Your task to perform on an android device: turn off location Image 0: 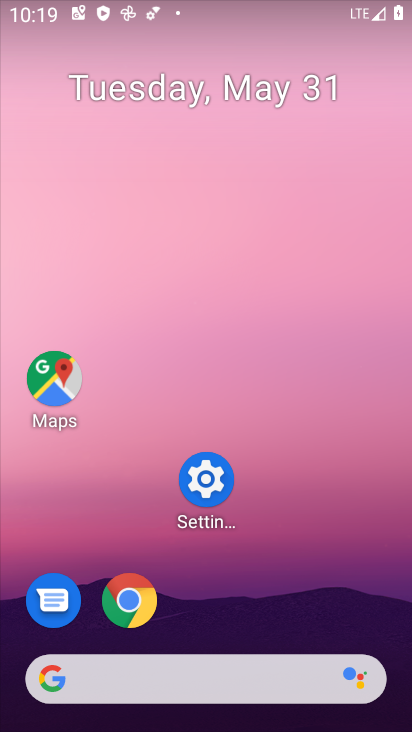
Step 0: press home button
Your task to perform on an android device: turn off location Image 1: 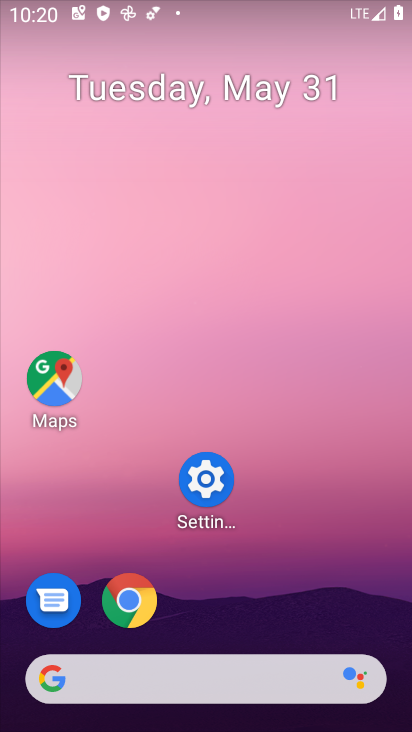
Step 1: drag from (329, 699) to (302, 94)
Your task to perform on an android device: turn off location Image 2: 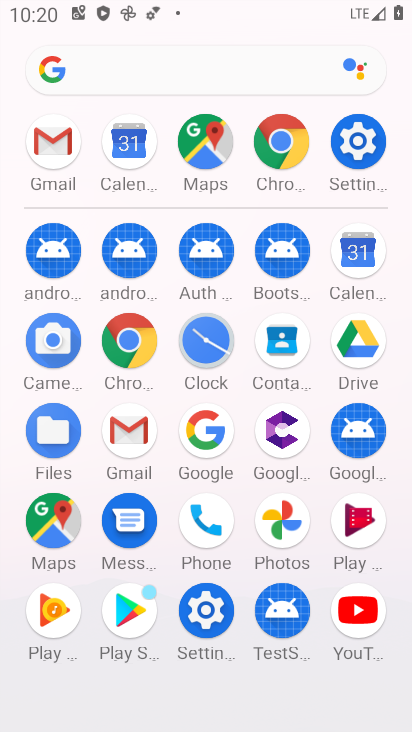
Step 2: click (362, 162)
Your task to perform on an android device: turn off location Image 3: 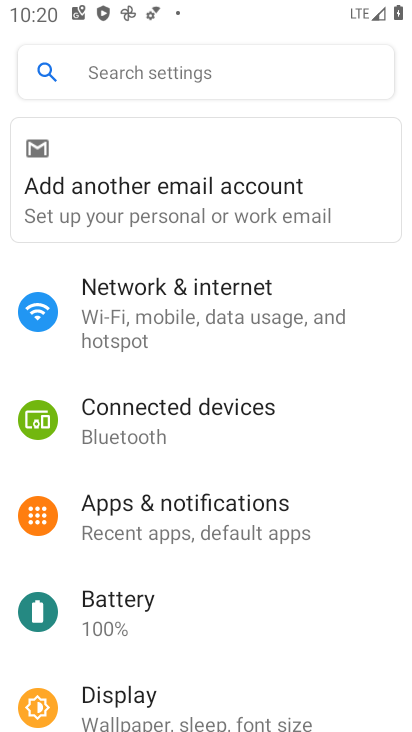
Step 3: click (179, 74)
Your task to perform on an android device: turn off location Image 4: 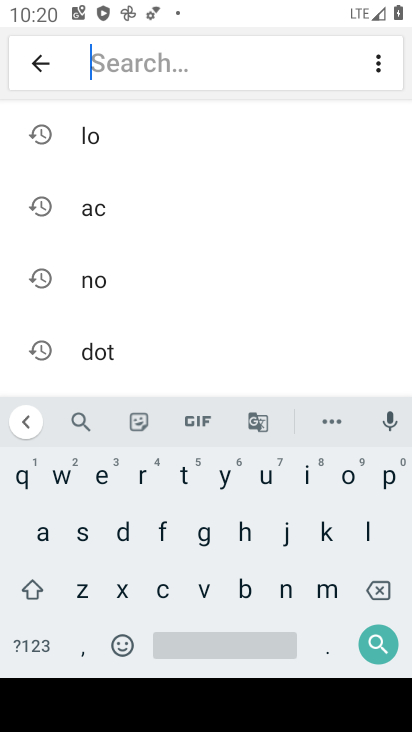
Step 4: click (377, 526)
Your task to perform on an android device: turn off location Image 5: 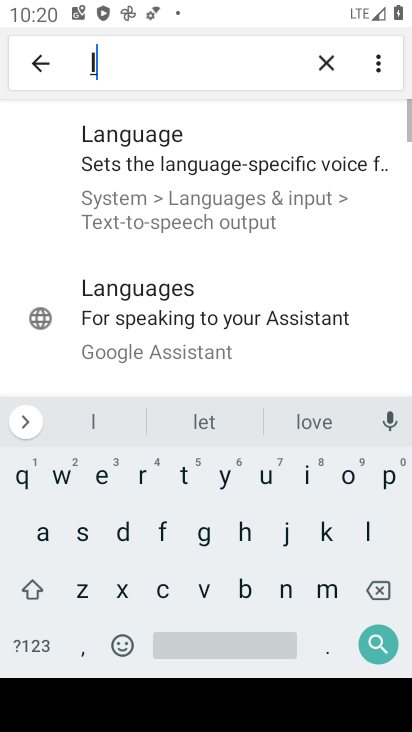
Step 5: click (352, 483)
Your task to perform on an android device: turn off location Image 6: 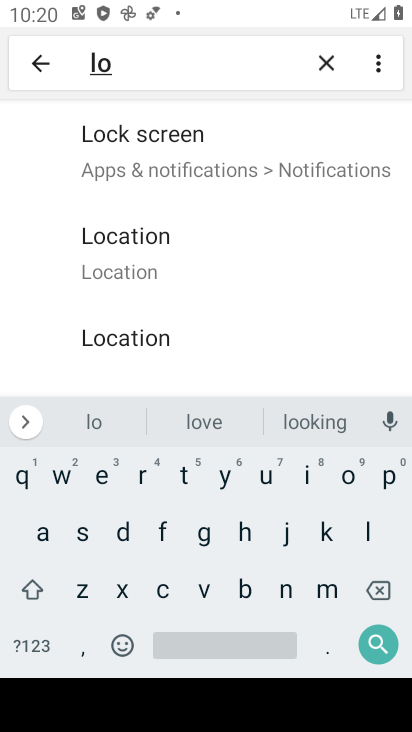
Step 6: click (148, 252)
Your task to perform on an android device: turn off location Image 7: 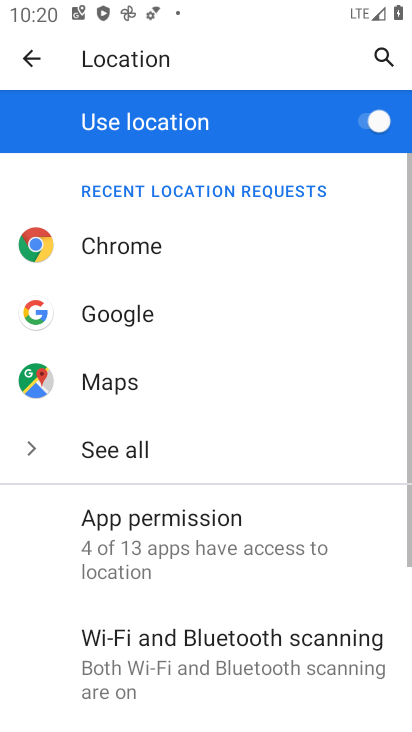
Step 7: click (366, 114)
Your task to perform on an android device: turn off location Image 8: 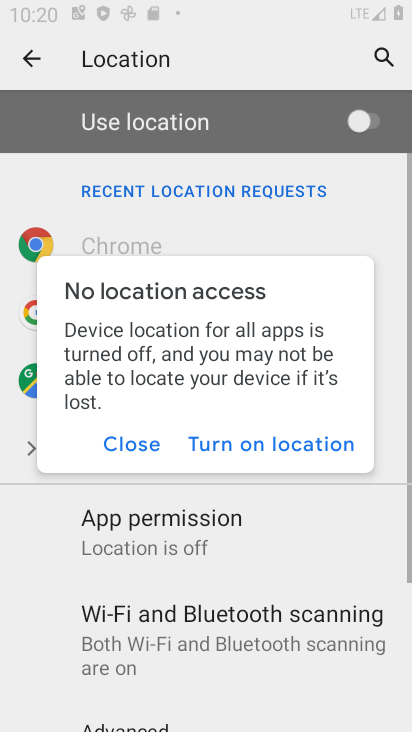
Step 8: task complete